Your task to perform on an android device: turn pop-ups off in chrome Image 0: 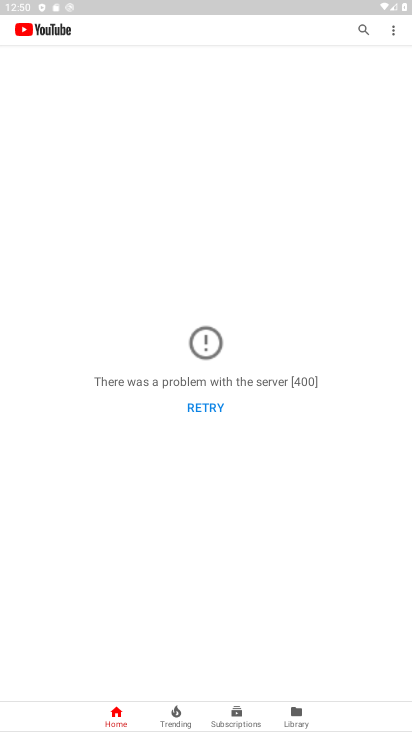
Step 0: press home button
Your task to perform on an android device: turn pop-ups off in chrome Image 1: 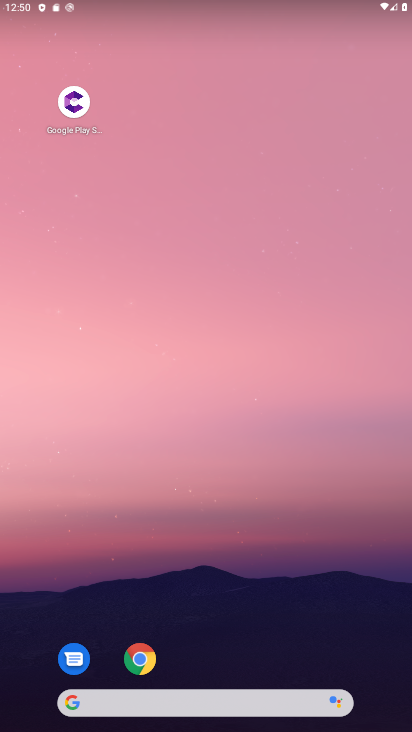
Step 1: drag from (178, 683) to (272, 84)
Your task to perform on an android device: turn pop-ups off in chrome Image 2: 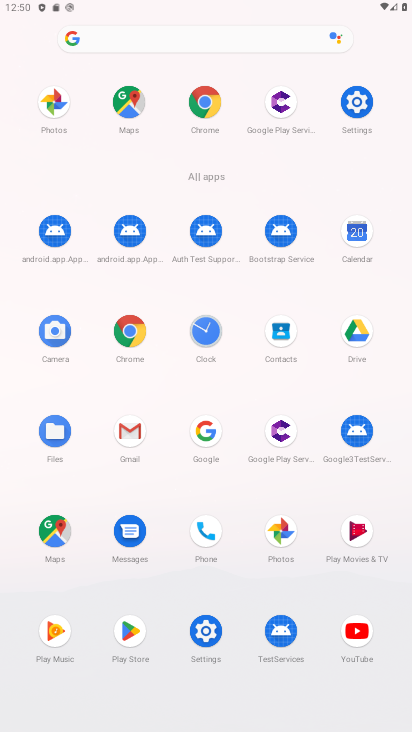
Step 2: click (137, 340)
Your task to perform on an android device: turn pop-ups off in chrome Image 3: 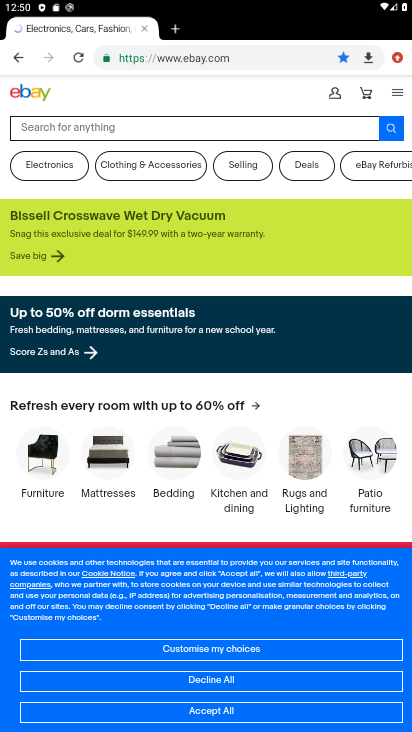
Step 3: drag from (397, 48) to (330, 420)
Your task to perform on an android device: turn pop-ups off in chrome Image 4: 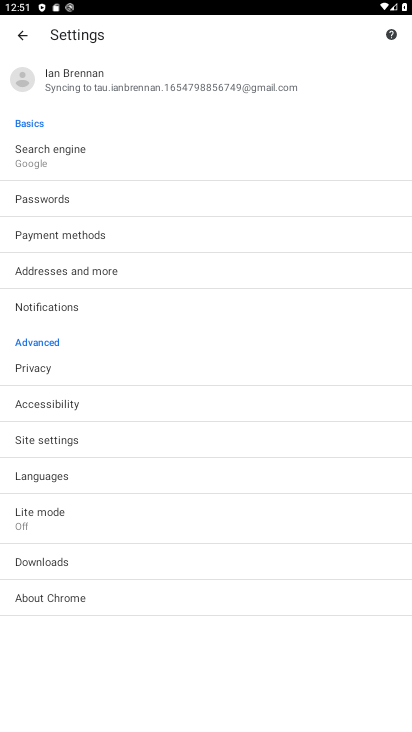
Step 4: click (60, 444)
Your task to perform on an android device: turn pop-ups off in chrome Image 5: 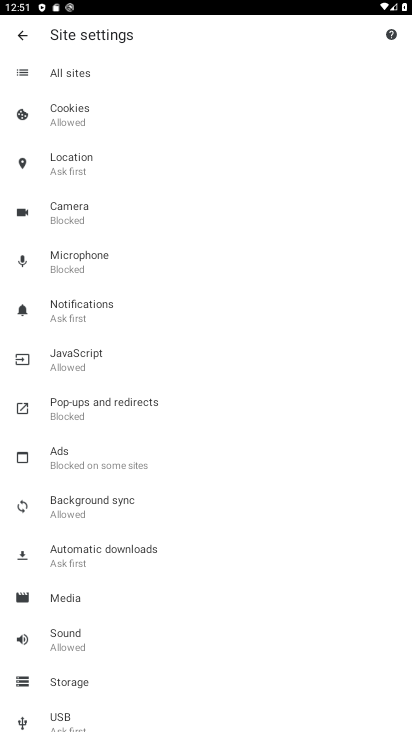
Step 5: click (130, 418)
Your task to perform on an android device: turn pop-ups off in chrome Image 6: 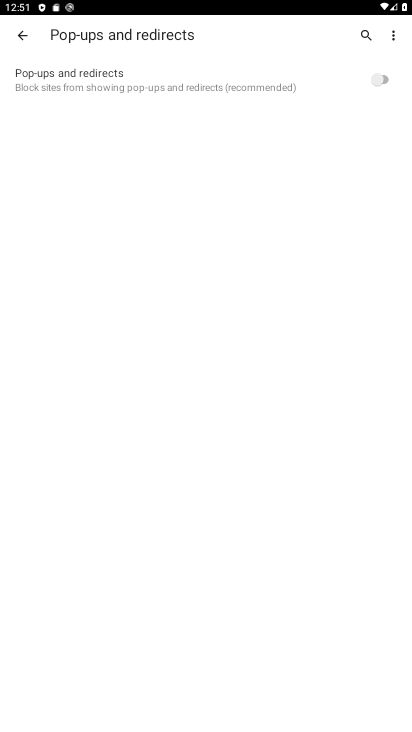
Step 6: task complete